Your task to perform on an android device: turn pop-ups on in chrome Image 0: 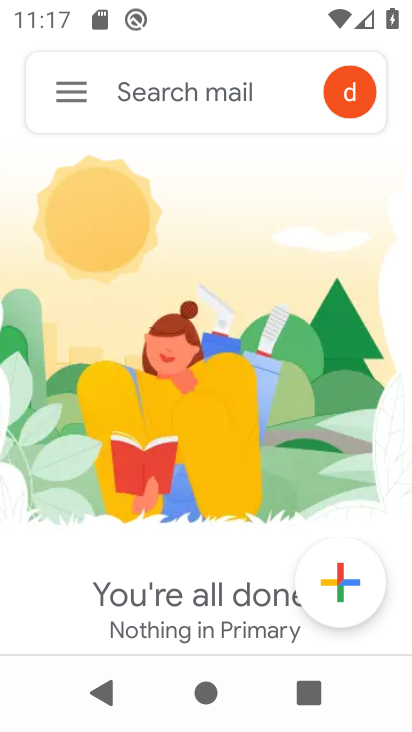
Step 0: press home button
Your task to perform on an android device: turn pop-ups on in chrome Image 1: 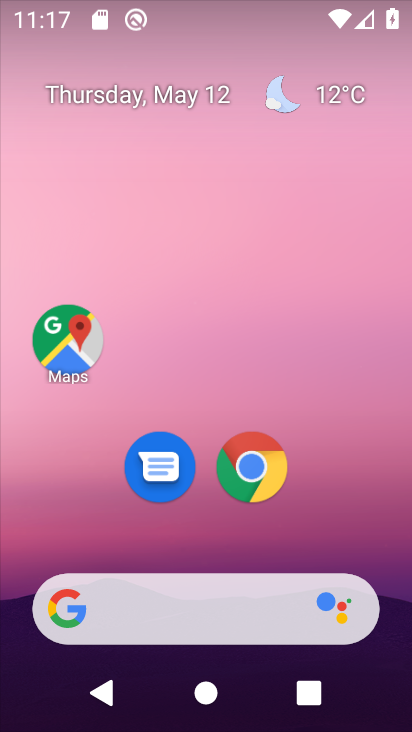
Step 1: click (260, 476)
Your task to perform on an android device: turn pop-ups on in chrome Image 2: 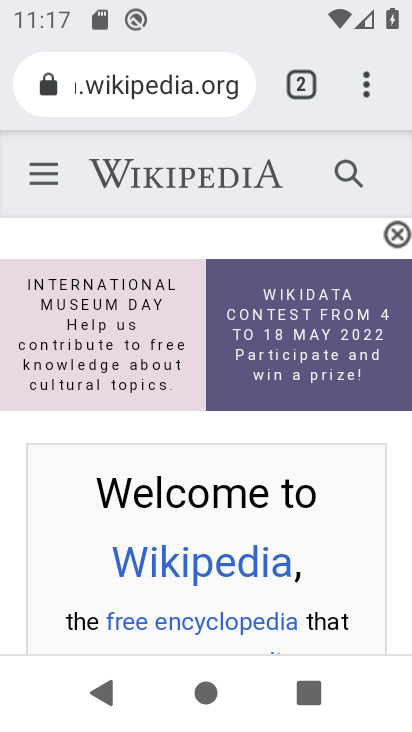
Step 2: click (361, 82)
Your task to perform on an android device: turn pop-ups on in chrome Image 3: 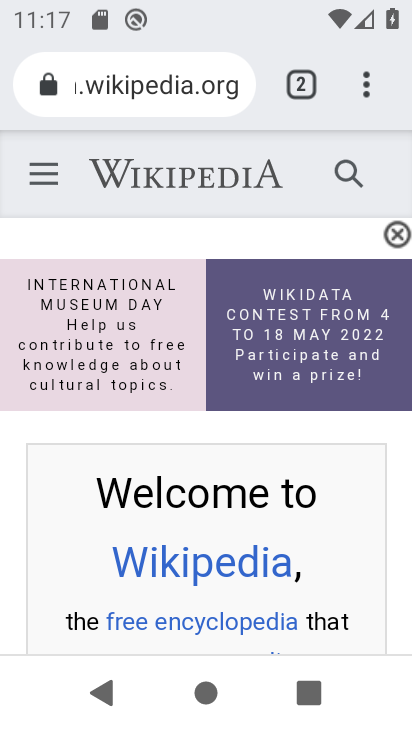
Step 3: click (362, 91)
Your task to perform on an android device: turn pop-ups on in chrome Image 4: 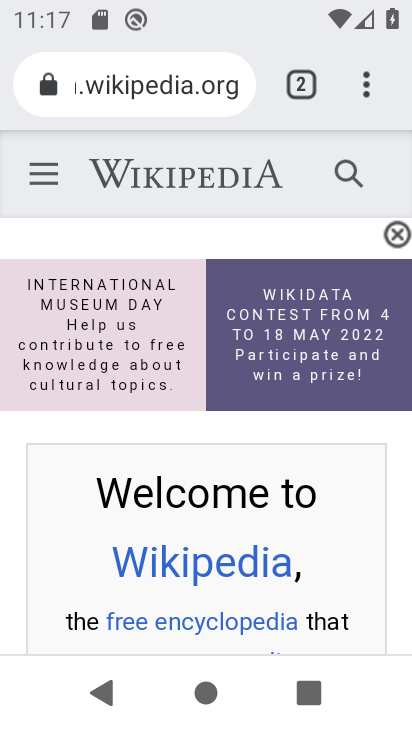
Step 4: click (369, 71)
Your task to perform on an android device: turn pop-ups on in chrome Image 5: 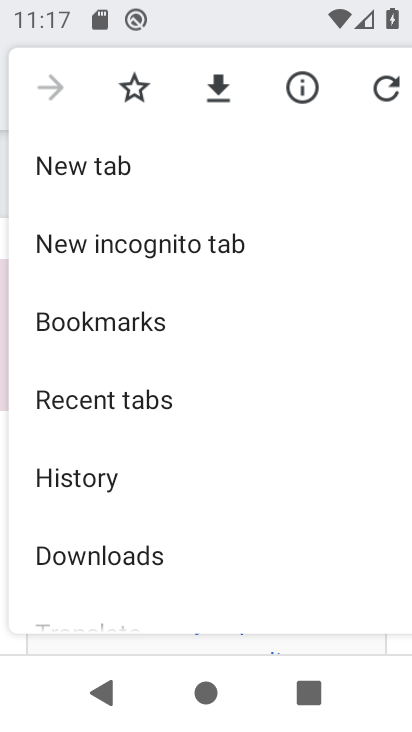
Step 5: drag from (224, 518) to (210, 101)
Your task to perform on an android device: turn pop-ups on in chrome Image 6: 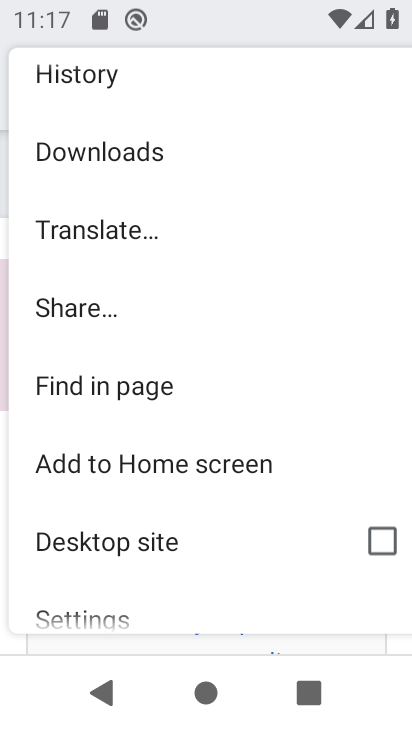
Step 6: click (121, 613)
Your task to perform on an android device: turn pop-ups on in chrome Image 7: 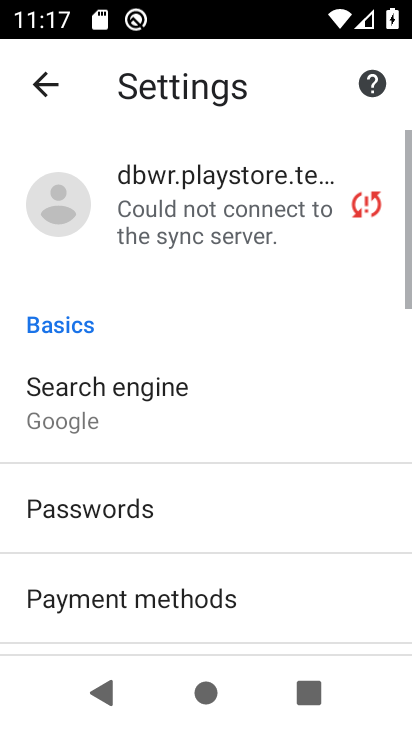
Step 7: drag from (185, 556) to (199, 159)
Your task to perform on an android device: turn pop-ups on in chrome Image 8: 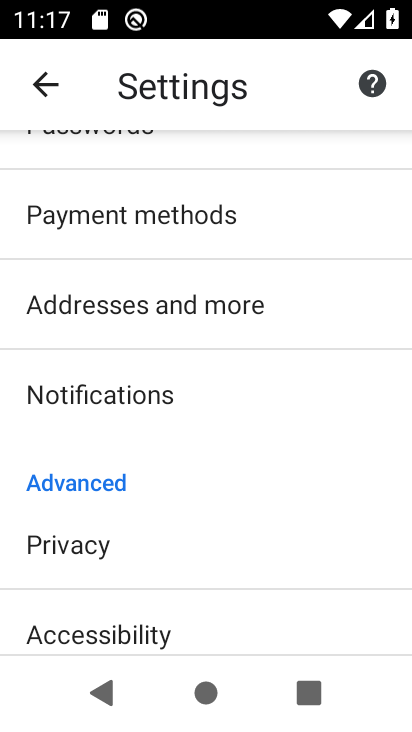
Step 8: drag from (201, 601) to (180, 328)
Your task to perform on an android device: turn pop-ups on in chrome Image 9: 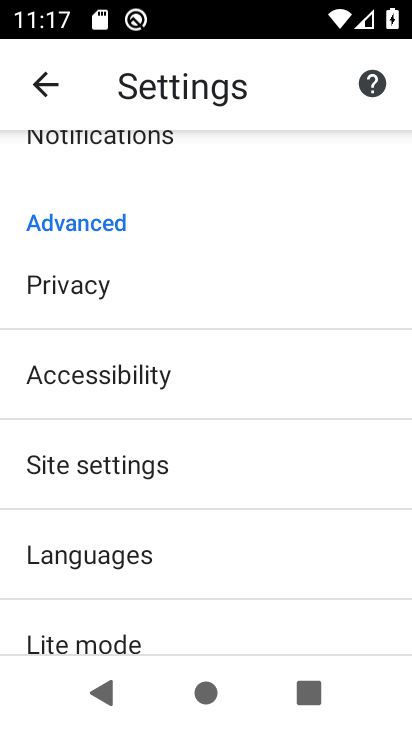
Step 9: click (147, 454)
Your task to perform on an android device: turn pop-ups on in chrome Image 10: 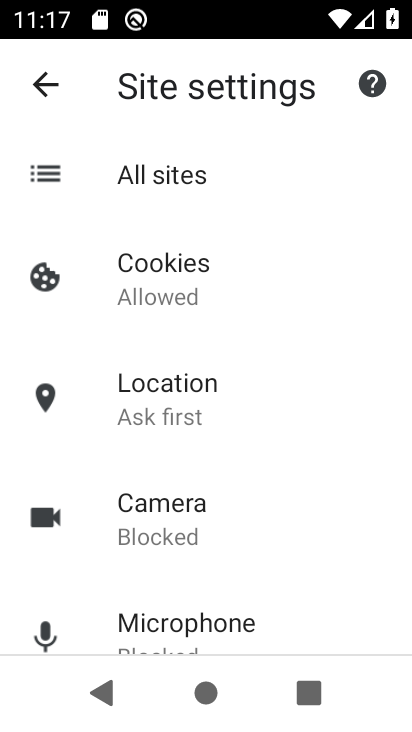
Step 10: drag from (229, 547) to (229, 266)
Your task to perform on an android device: turn pop-ups on in chrome Image 11: 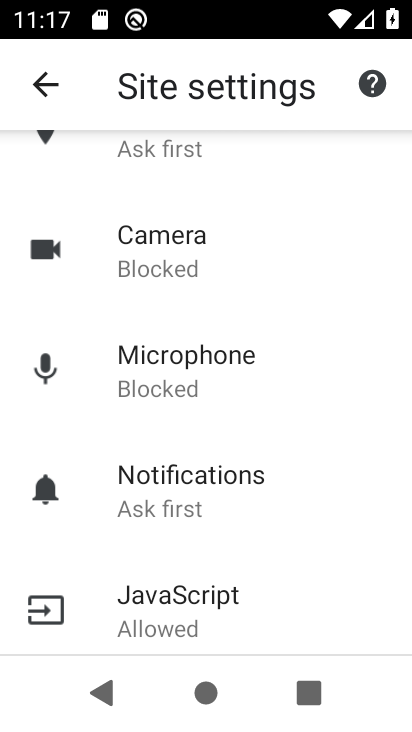
Step 11: drag from (229, 567) to (226, 294)
Your task to perform on an android device: turn pop-ups on in chrome Image 12: 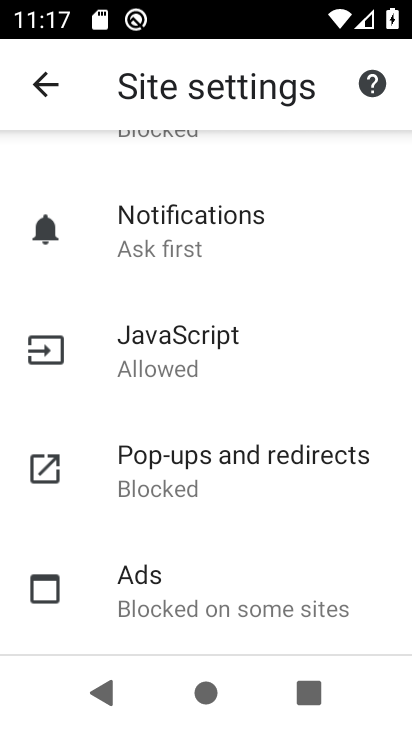
Step 12: click (219, 453)
Your task to perform on an android device: turn pop-ups on in chrome Image 13: 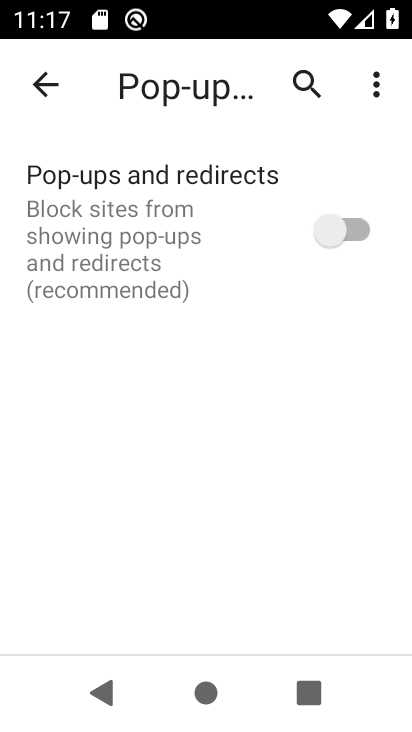
Step 13: click (348, 223)
Your task to perform on an android device: turn pop-ups on in chrome Image 14: 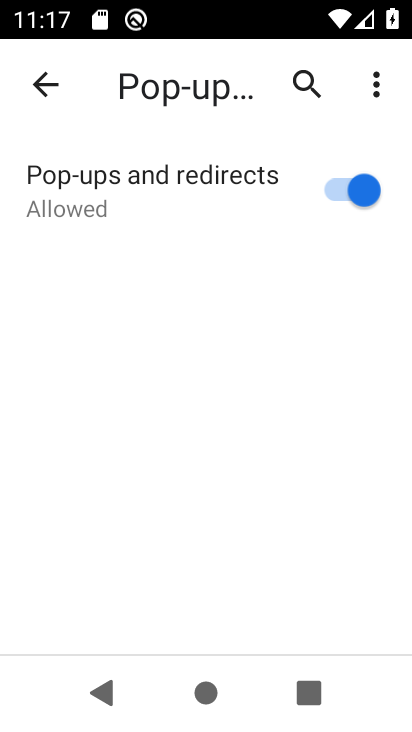
Step 14: task complete